Your task to perform on an android device: turn on priority inbox in the gmail app Image 0: 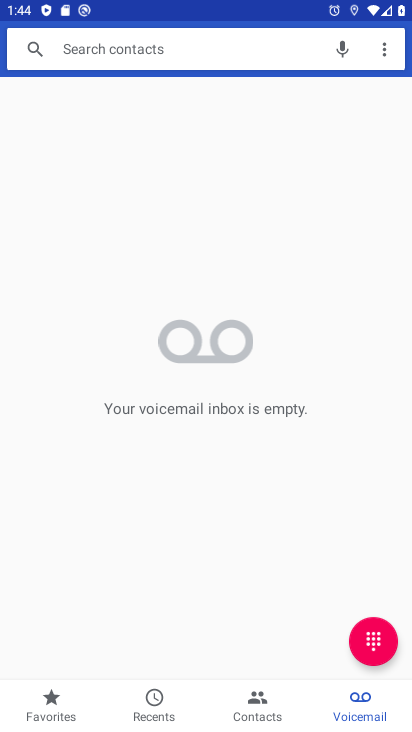
Step 0: press home button
Your task to perform on an android device: turn on priority inbox in the gmail app Image 1: 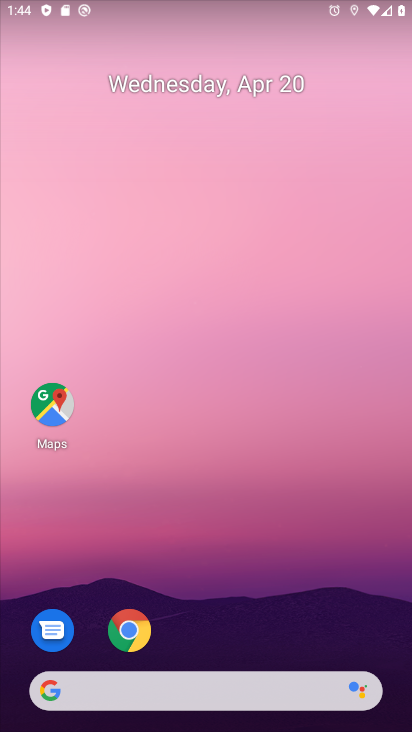
Step 1: drag from (211, 608) to (111, 106)
Your task to perform on an android device: turn on priority inbox in the gmail app Image 2: 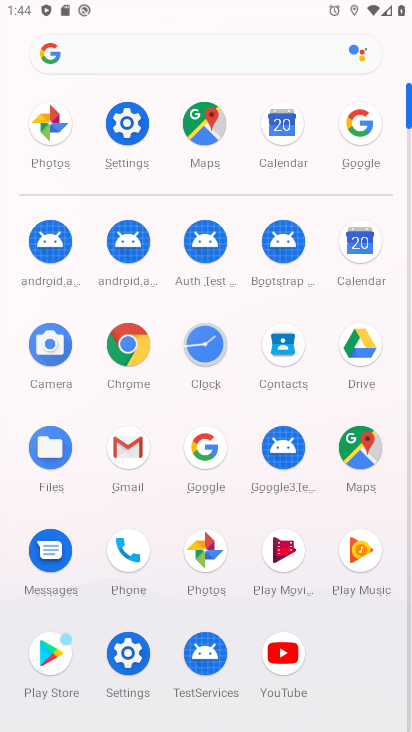
Step 2: click (130, 454)
Your task to perform on an android device: turn on priority inbox in the gmail app Image 3: 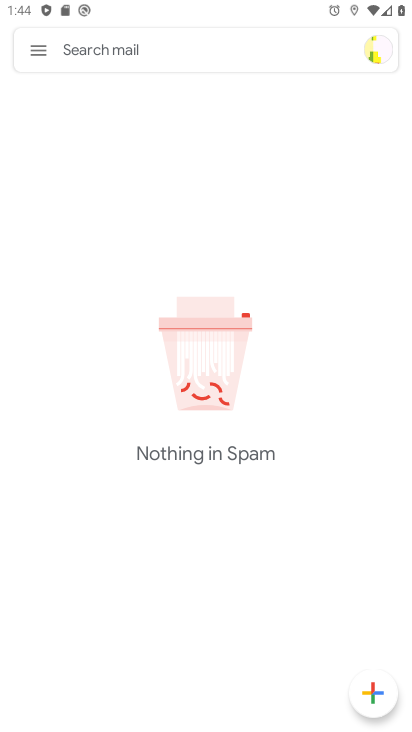
Step 3: click (48, 52)
Your task to perform on an android device: turn on priority inbox in the gmail app Image 4: 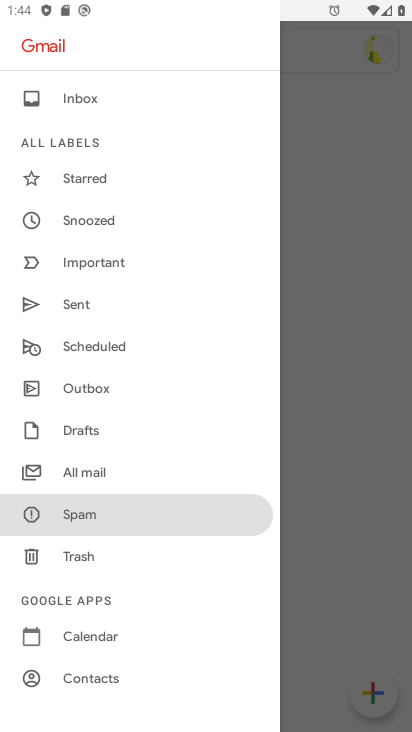
Step 4: drag from (85, 684) to (107, 382)
Your task to perform on an android device: turn on priority inbox in the gmail app Image 5: 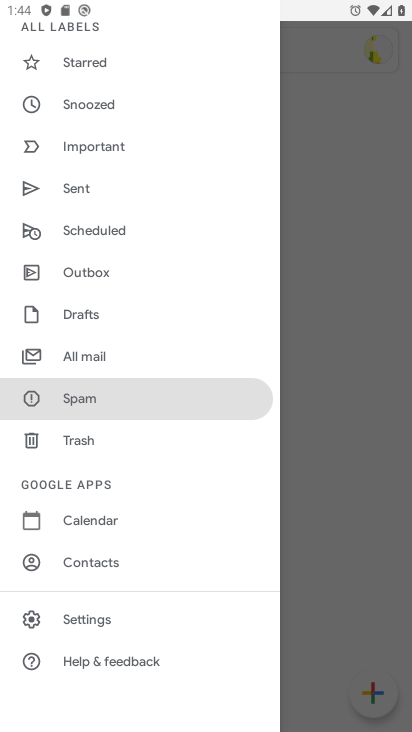
Step 5: click (73, 622)
Your task to perform on an android device: turn on priority inbox in the gmail app Image 6: 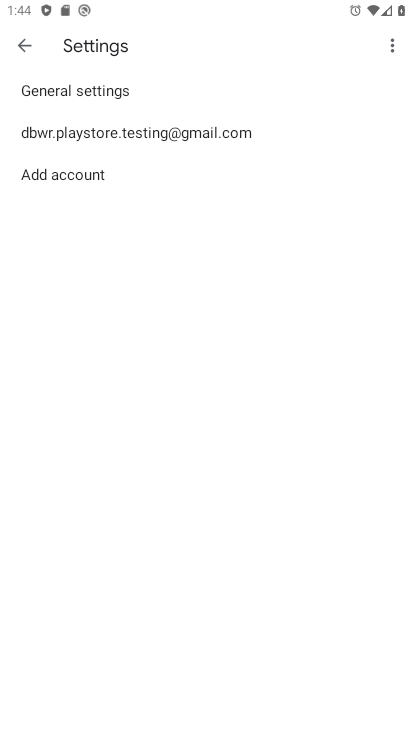
Step 6: click (133, 132)
Your task to perform on an android device: turn on priority inbox in the gmail app Image 7: 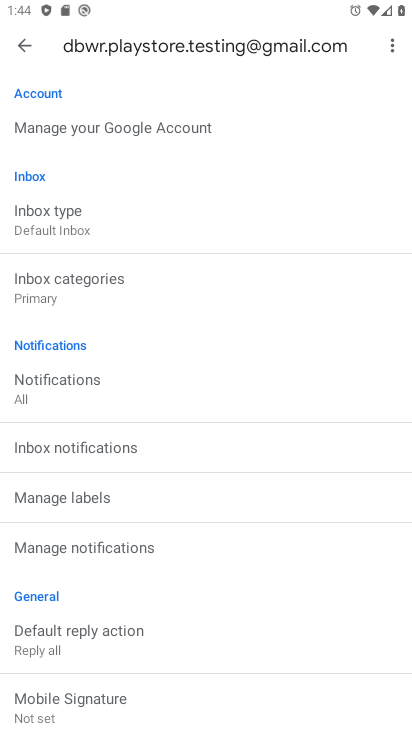
Step 7: click (59, 226)
Your task to perform on an android device: turn on priority inbox in the gmail app Image 8: 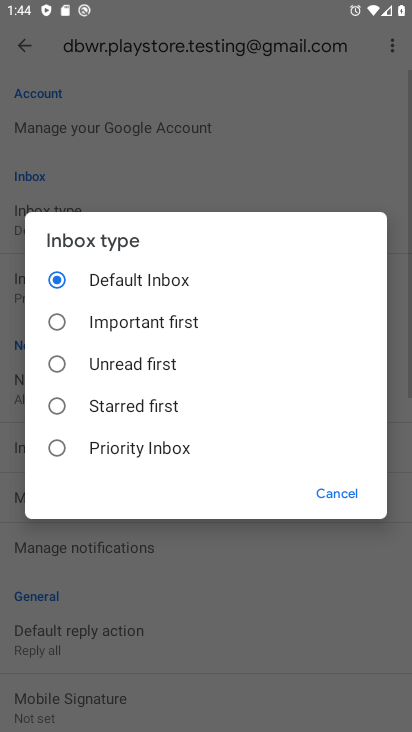
Step 8: click (117, 451)
Your task to perform on an android device: turn on priority inbox in the gmail app Image 9: 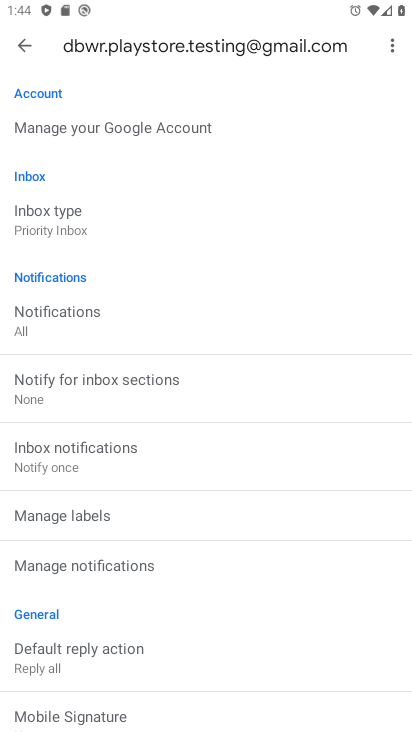
Step 9: task complete